Your task to perform on an android device: Toggle the flashlight Image 0: 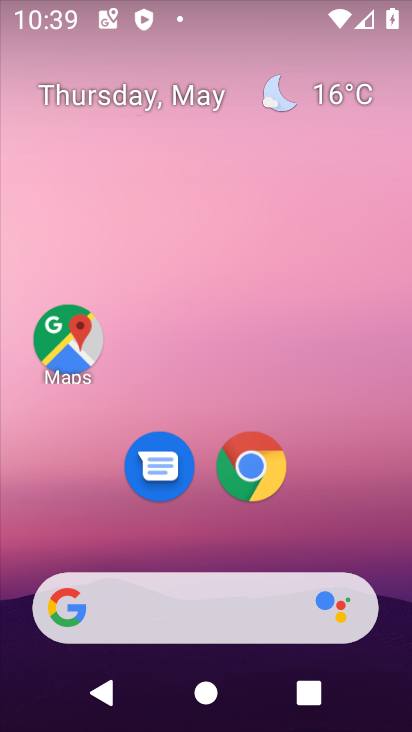
Step 0: drag from (359, 443) to (351, 239)
Your task to perform on an android device: Toggle the flashlight Image 1: 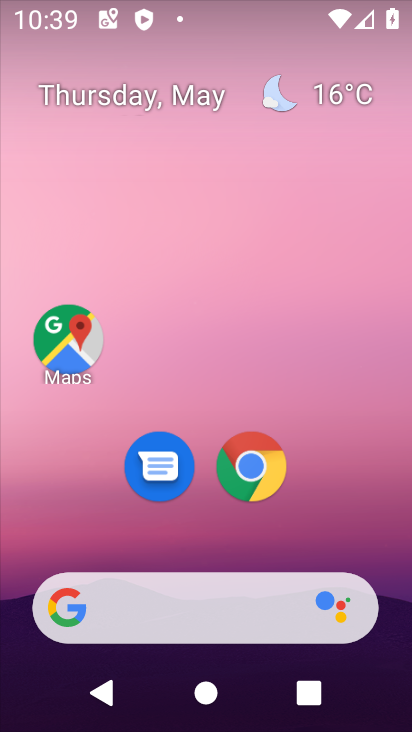
Step 1: click (305, 519)
Your task to perform on an android device: Toggle the flashlight Image 2: 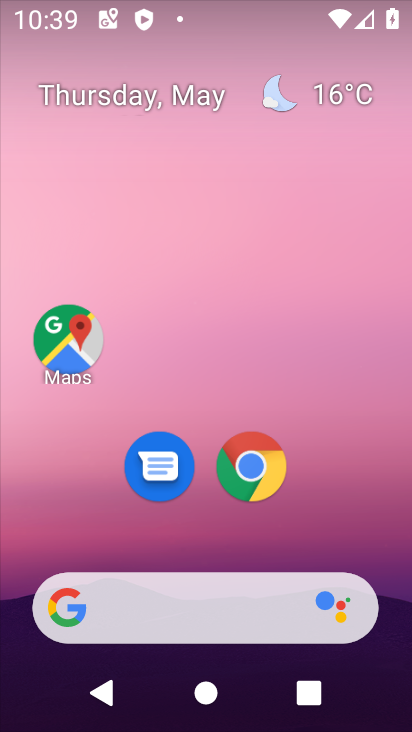
Step 2: drag from (340, 528) to (389, 222)
Your task to perform on an android device: Toggle the flashlight Image 3: 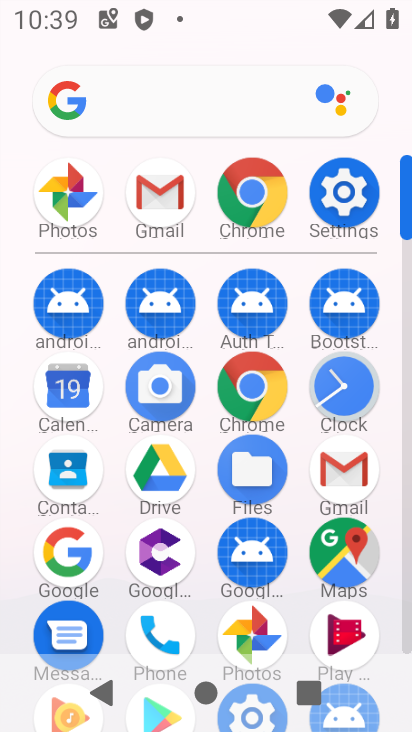
Step 3: click (347, 199)
Your task to perform on an android device: Toggle the flashlight Image 4: 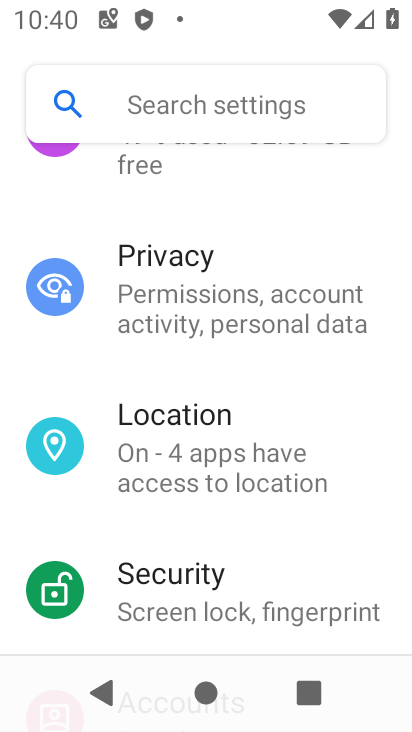
Step 4: task complete